Your task to perform on an android device: turn off location Image 0: 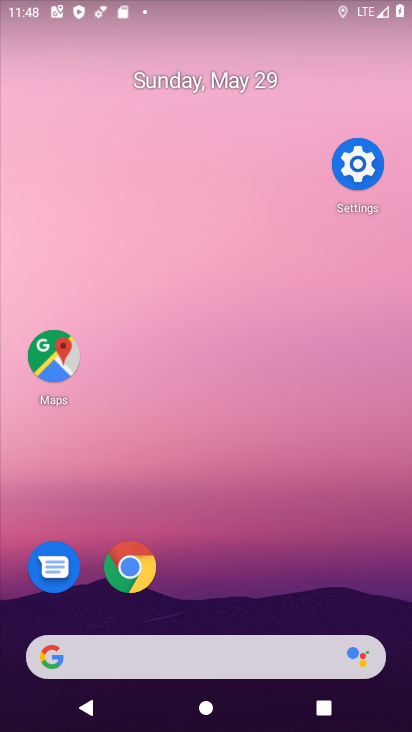
Step 0: drag from (258, 550) to (265, 212)
Your task to perform on an android device: turn off location Image 1: 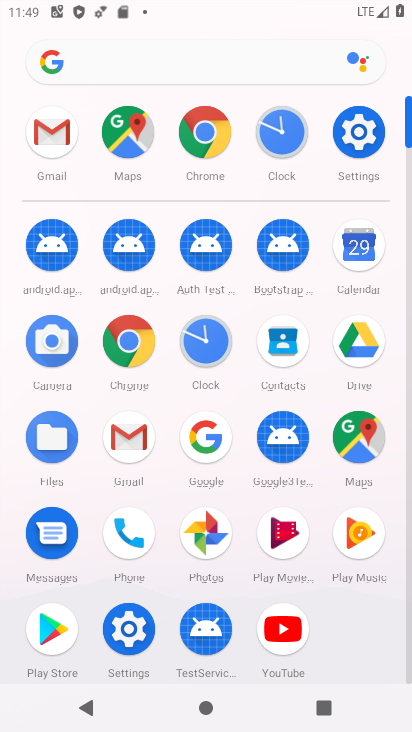
Step 1: click (357, 136)
Your task to perform on an android device: turn off location Image 2: 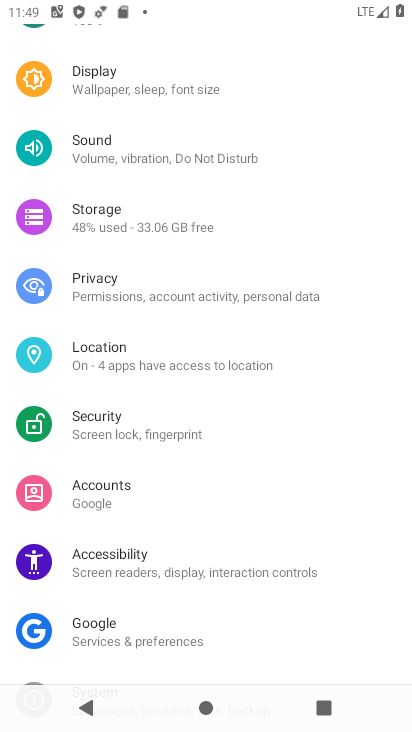
Step 2: click (168, 351)
Your task to perform on an android device: turn off location Image 3: 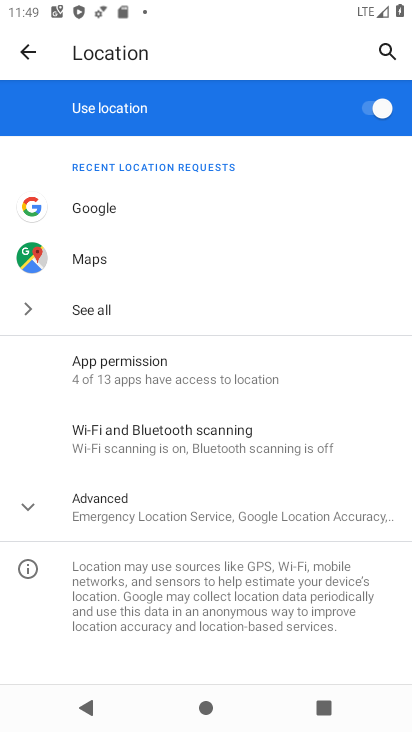
Step 3: click (375, 111)
Your task to perform on an android device: turn off location Image 4: 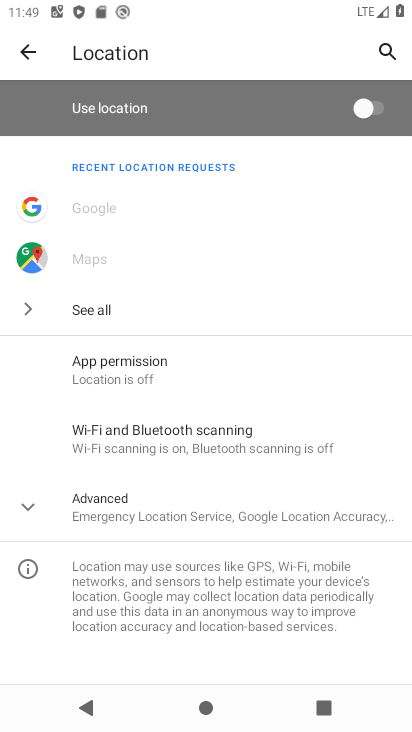
Step 4: task complete